Your task to perform on an android device: What's the weather going to be tomorrow? Image 0: 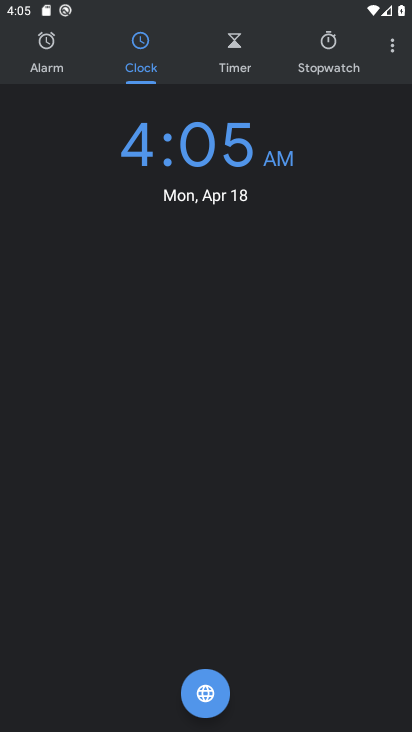
Step 0: press home button
Your task to perform on an android device: What's the weather going to be tomorrow? Image 1: 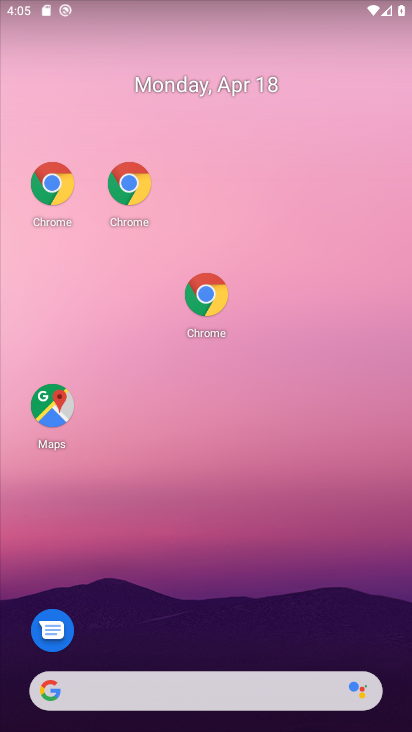
Step 1: drag from (377, 244) to (385, 311)
Your task to perform on an android device: What's the weather going to be tomorrow? Image 2: 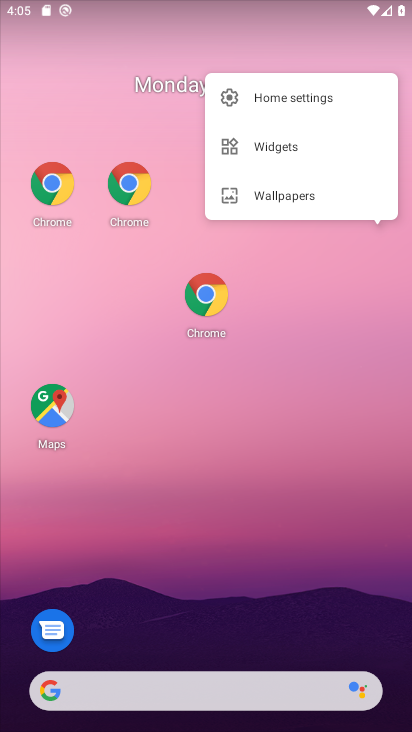
Step 2: drag from (139, 234) to (394, 307)
Your task to perform on an android device: What's the weather going to be tomorrow? Image 3: 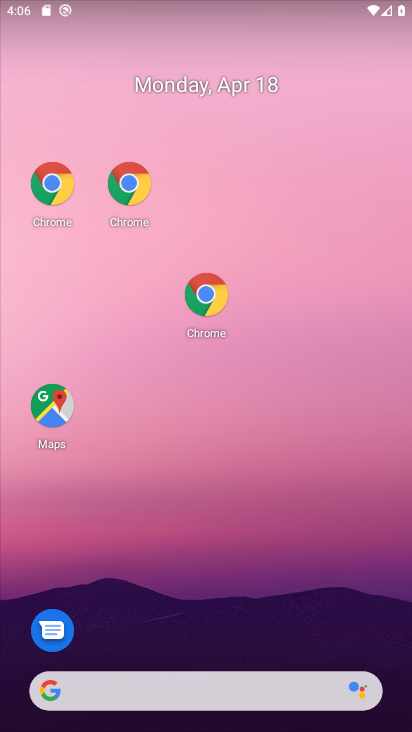
Step 3: drag from (44, 320) to (373, 314)
Your task to perform on an android device: What's the weather going to be tomorrow? Image 4: 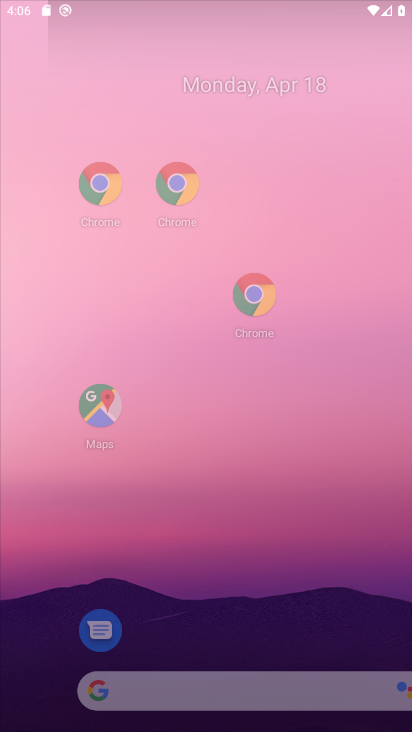
Step 4: drag from (361, 190) to (408, 102)
Your task to perform on an android device: What's the weather going to be tomorrow? Image 5: 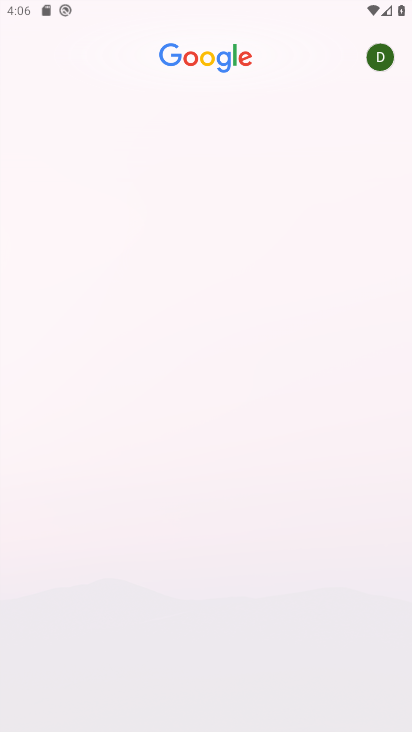
Step 5: drag from (105, 138) to (387, 394)
Your task to perform on an android device: What's the weather going to be tomorrow? Image 6: 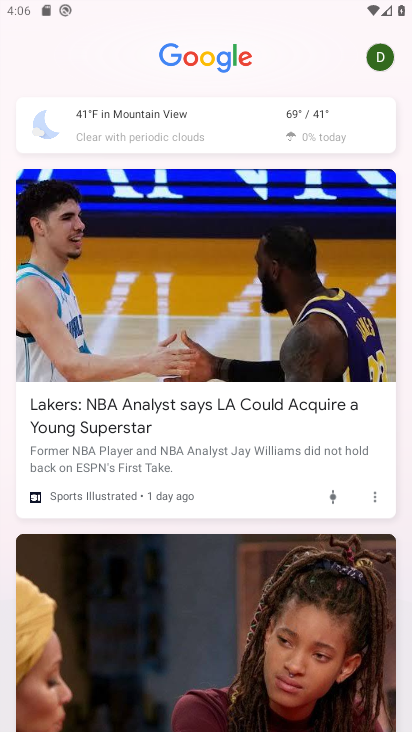
Step 6: click (310, 96)
Your task to perform on an android device: What's the weather going to be tomorrow? Image 7: 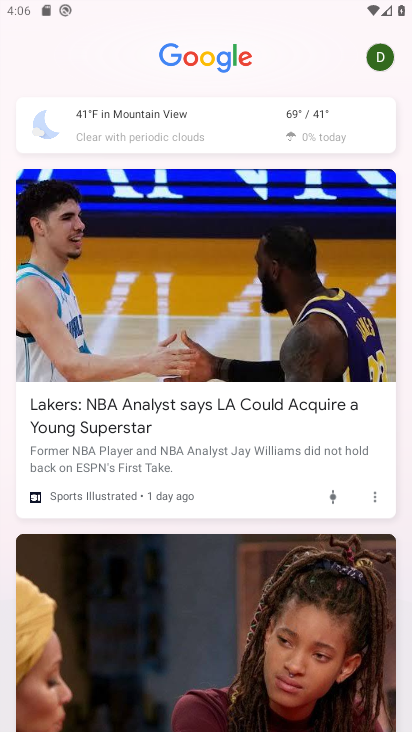
Step 7: click (310, 106)
Your task to perform on an android device: What's the weather going to be tomorrow? Image 8: 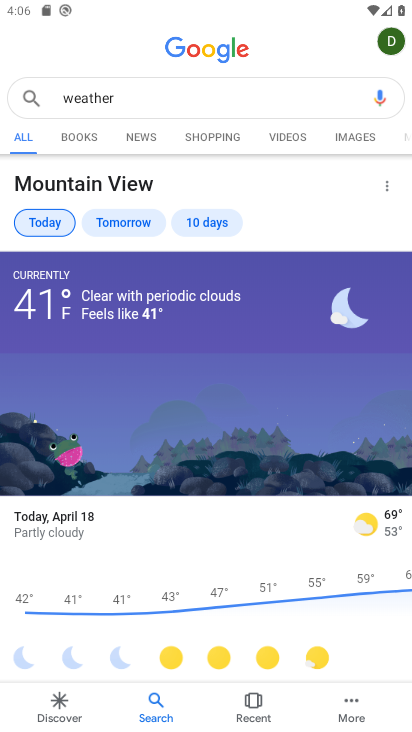
Step 8: click (118, 220)
Your task to perform on an android device: What's the weather going to be tomorrow? Image 9: 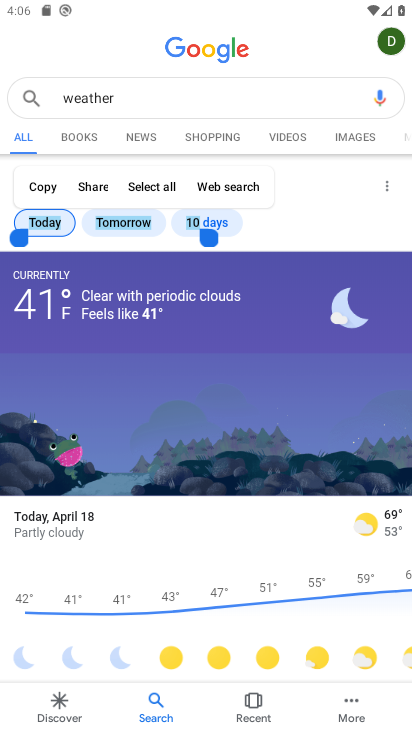
Step 9: click (131, 226)
Your task to perform on an android device: What's the weather going to be tomorrow? Image 10: 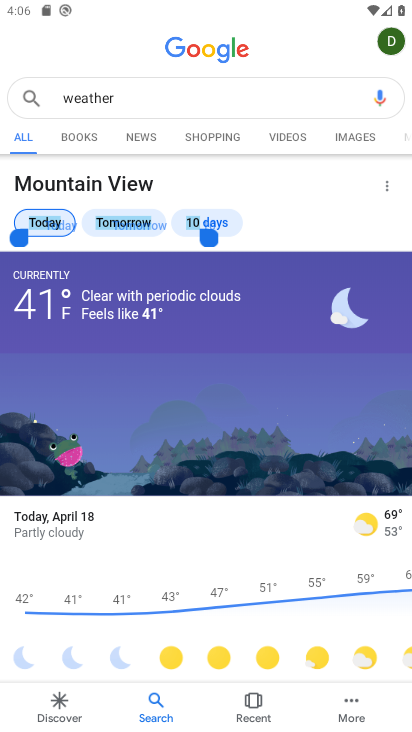
Step 10: click (131, 226)
Your task to perform on an android device: What's the weather going to be tomorrow? Image 11: 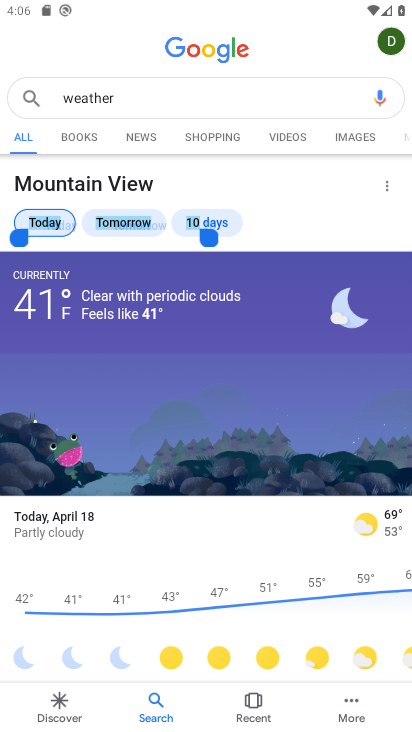
Step 11: click (132, 224)
Your task to perform on an android device: What's the weather going to be tomorrow? Image 12: 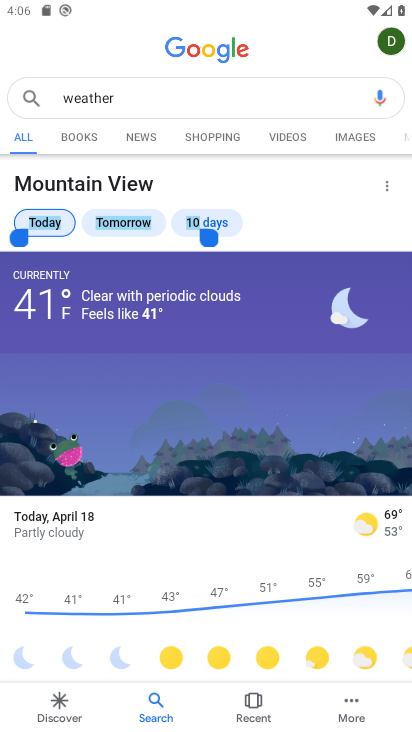
Step 12: click (132, 224)
Your task to perform on an android device: What's the weather going to be tomorrow? Image 13: 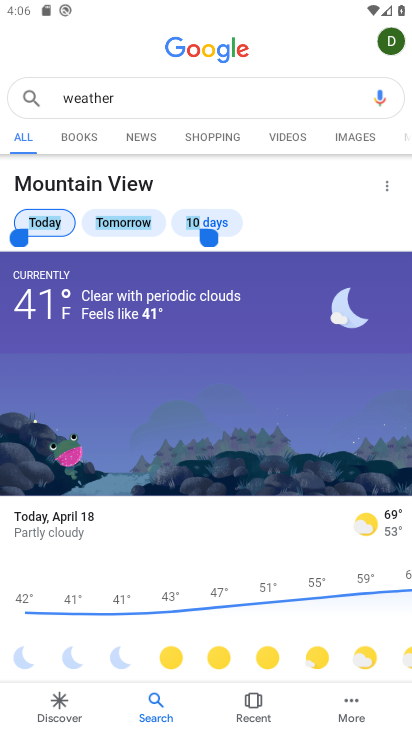
Step 13: click (132, 224)
Your task to perform on an android device: What's the weather going to be tomorrow? Image 14: 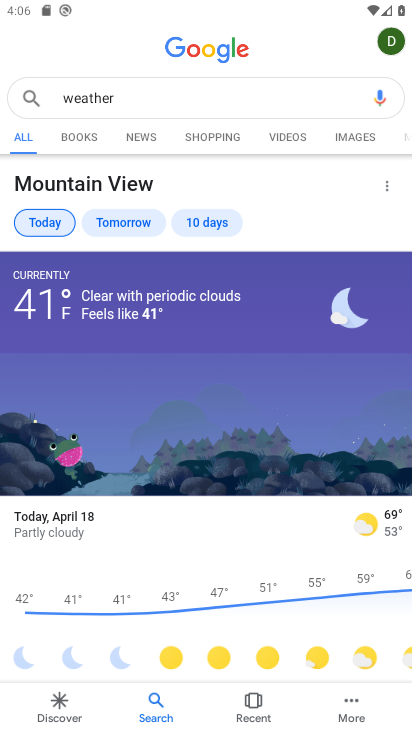
Step 14: task complete